Your task to perform on an android device: turn on priority inbox in the gmail app Image 0: 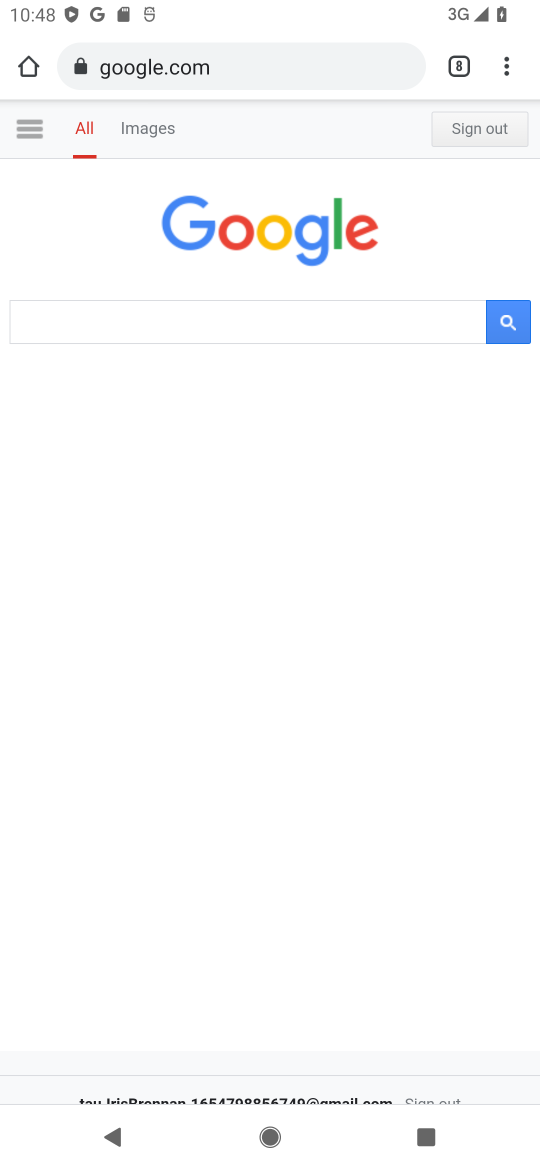
Step 0: press home button
Your task to perform on an android device: turn on priority inbox in the gmail app Image 1: 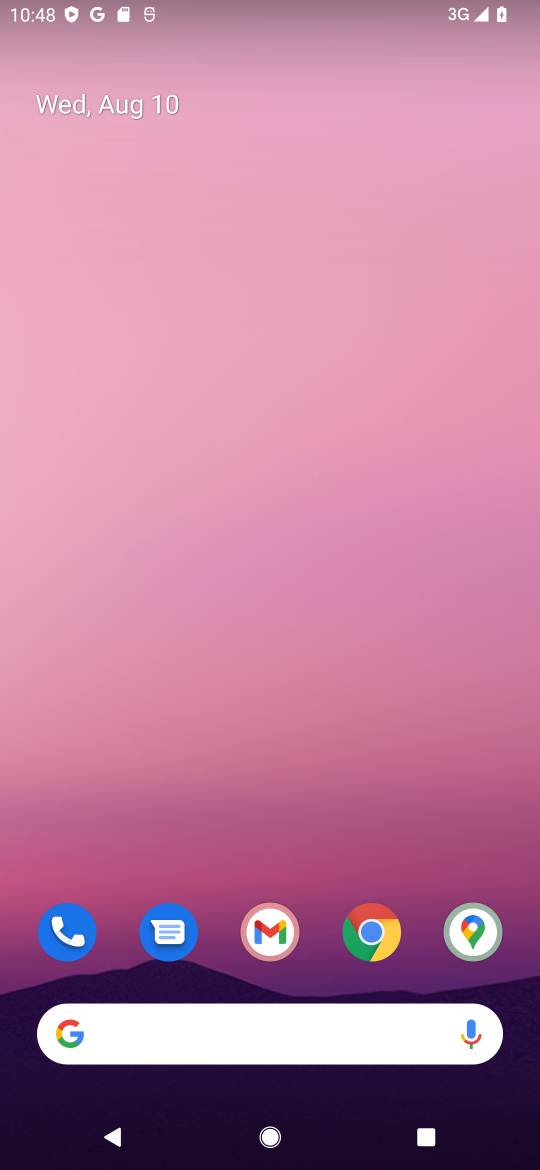
Step 1: click (273, 933)
Your task to perform on an android device: turn on priority inbox in the gmail app Image 2: 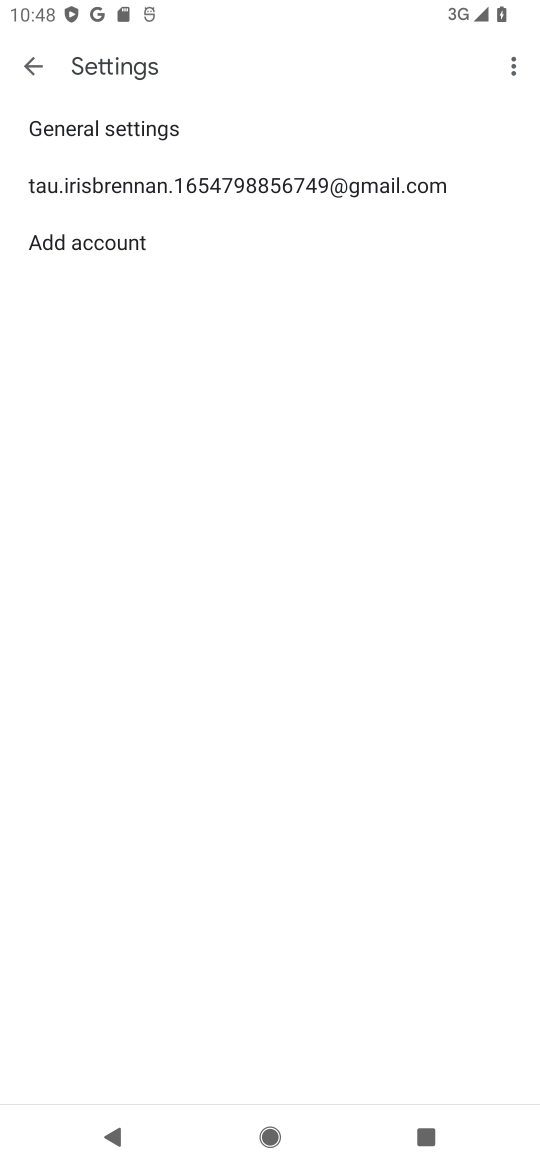
Step 2: click (98, 181)
Your task to perform on an android device: turn on priority inbox in the gmail app Image 3: 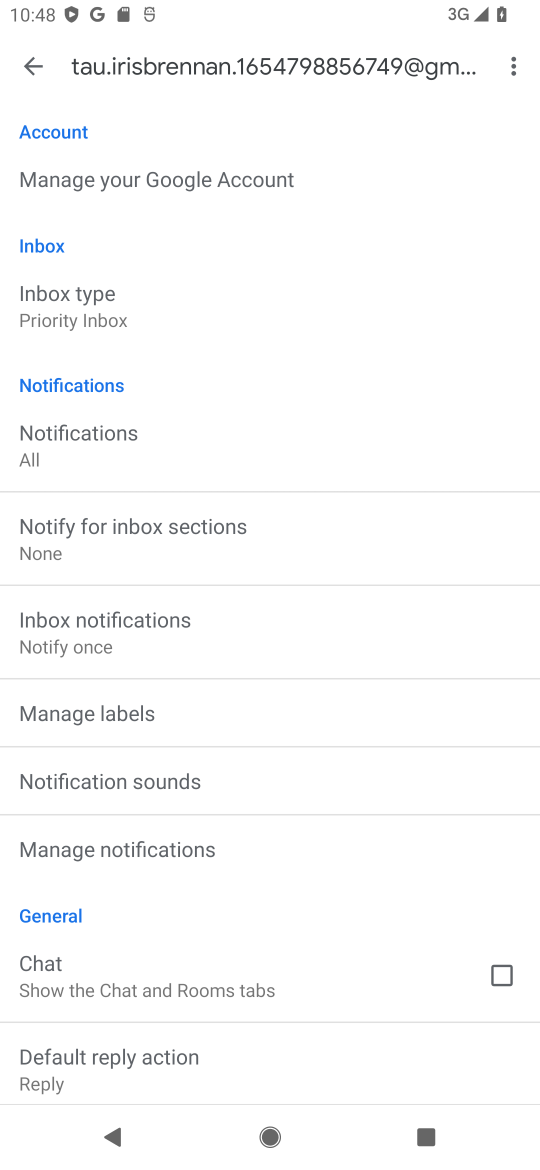
Step 3: click (58, 279)
Your task to perform on an android device: turn on priority inbox in the gmail app Image 4: 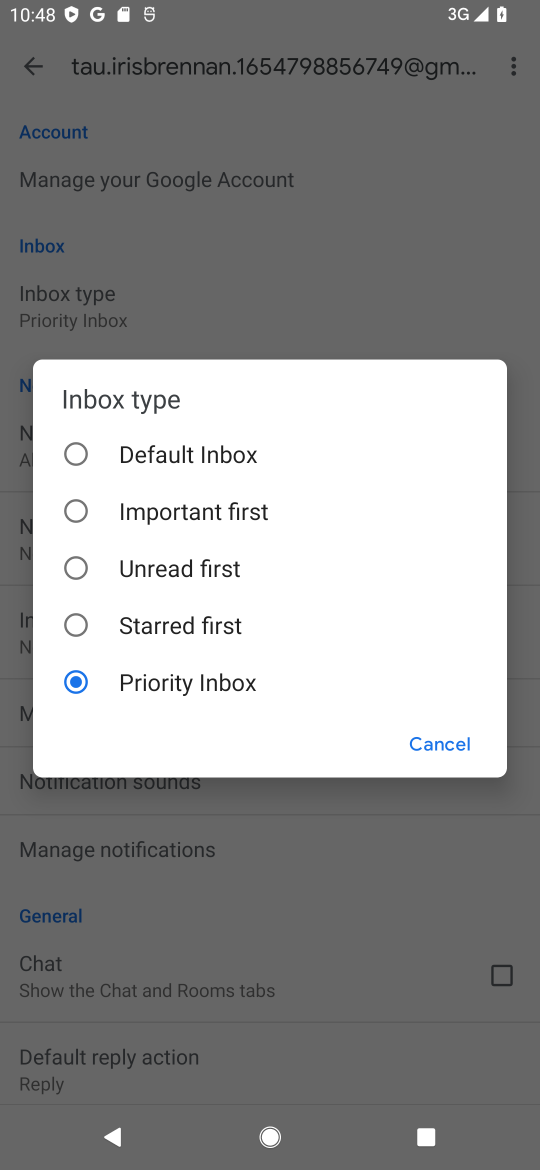
Step 4: task complete